Your task to perform on an android device: install app "Messenger Lite" Image 0: 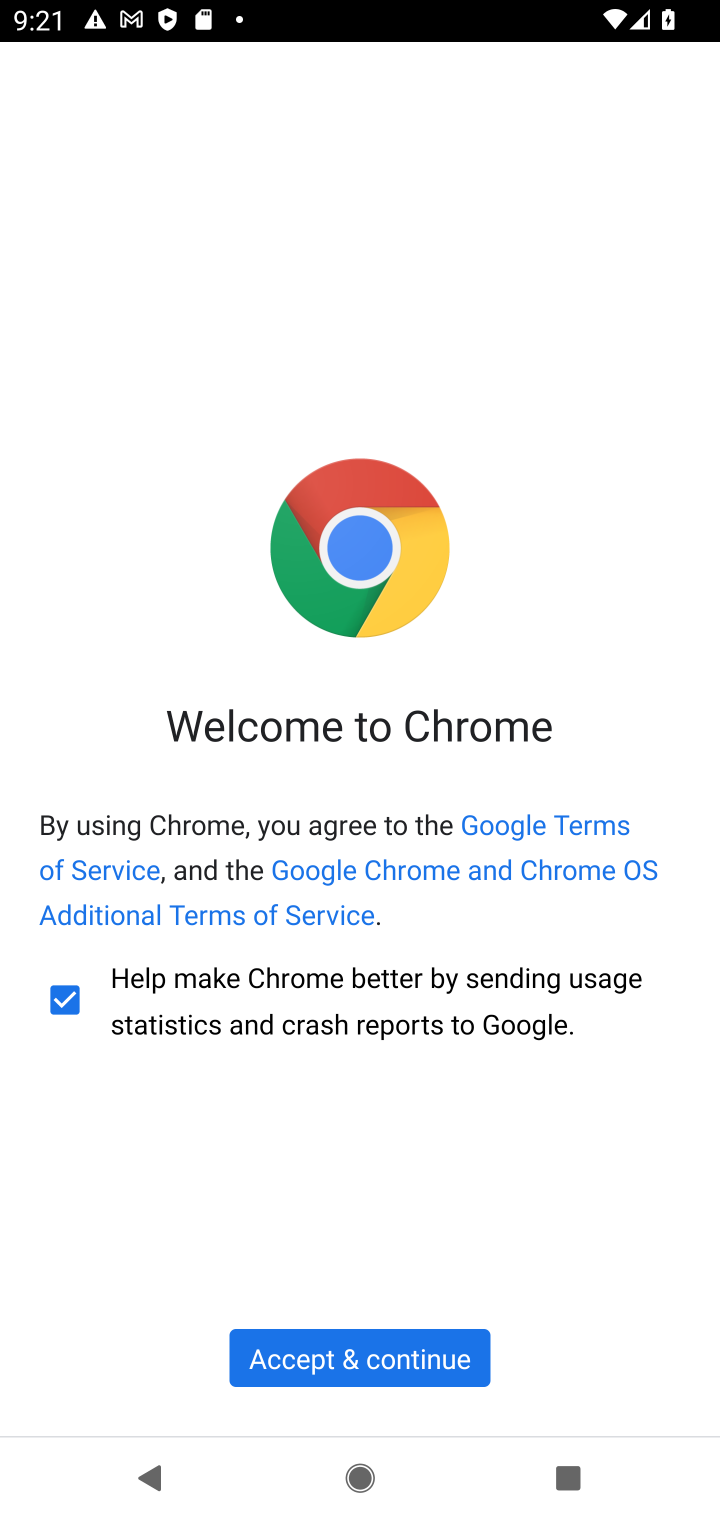
Step 0: press home button
Your task to perform on an android device: install app "Messenger Lite" Image 1: 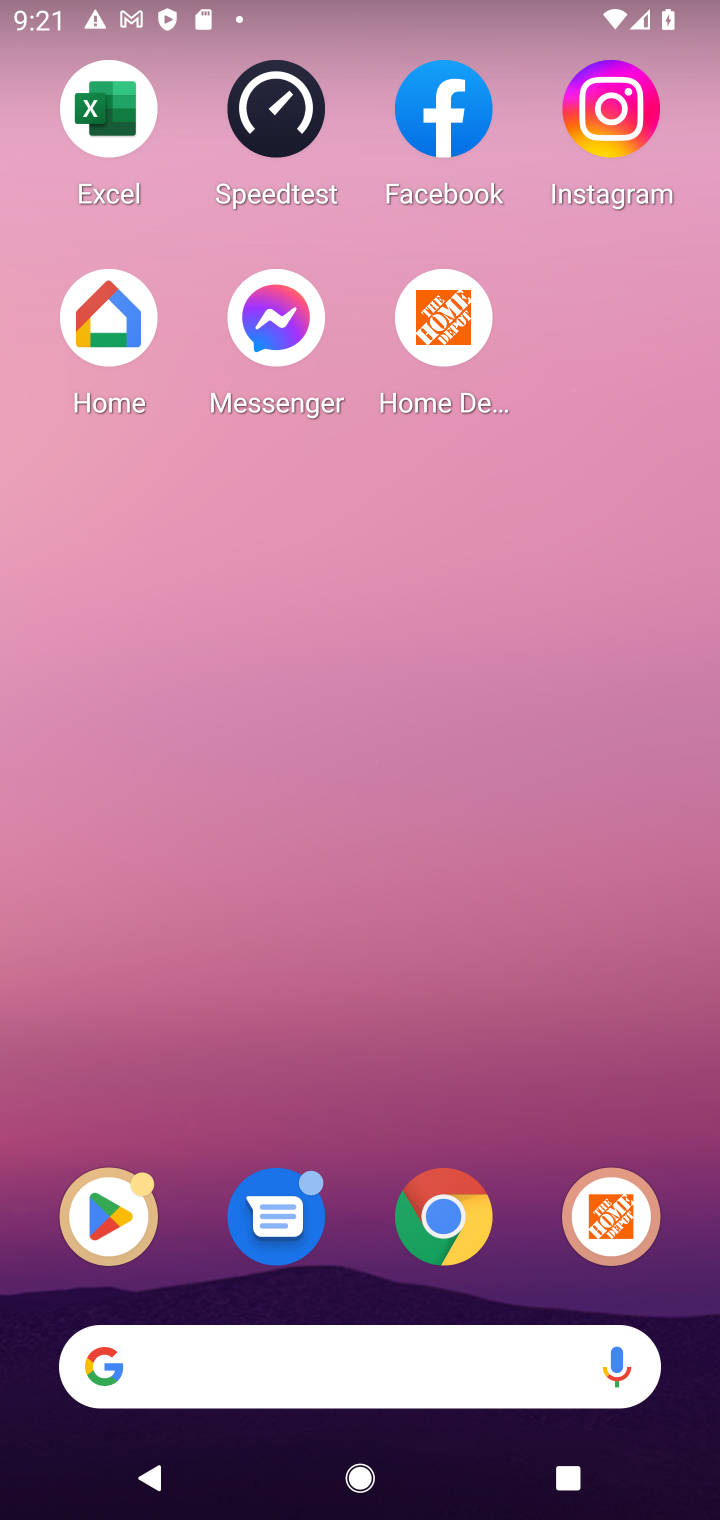
Step 1: click (132, 1239)
Your task to perform on an android device: install app "Messenger Lite" Image 2: 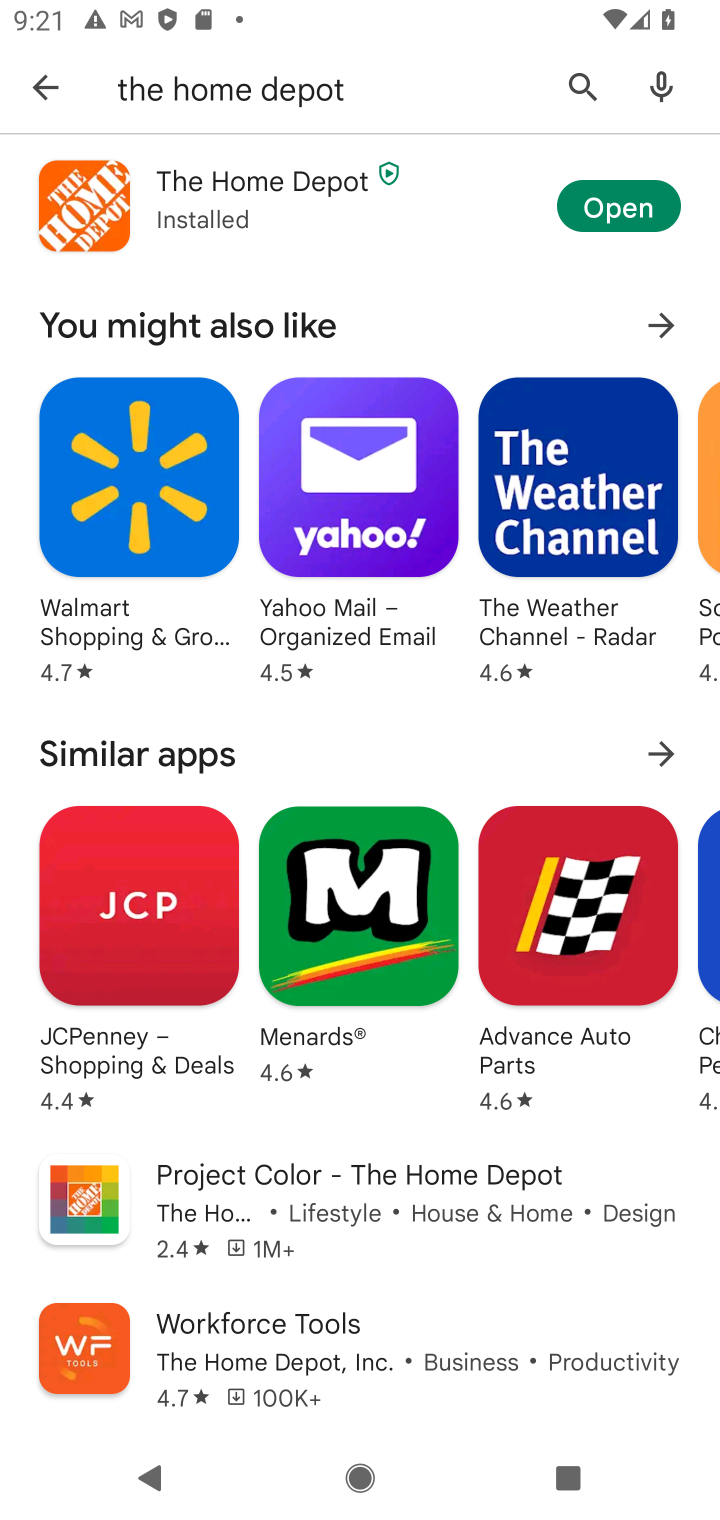
Step 2: click (572, 72)
Your task to perform on an android device: install app "Messenger Lite" Image 3: 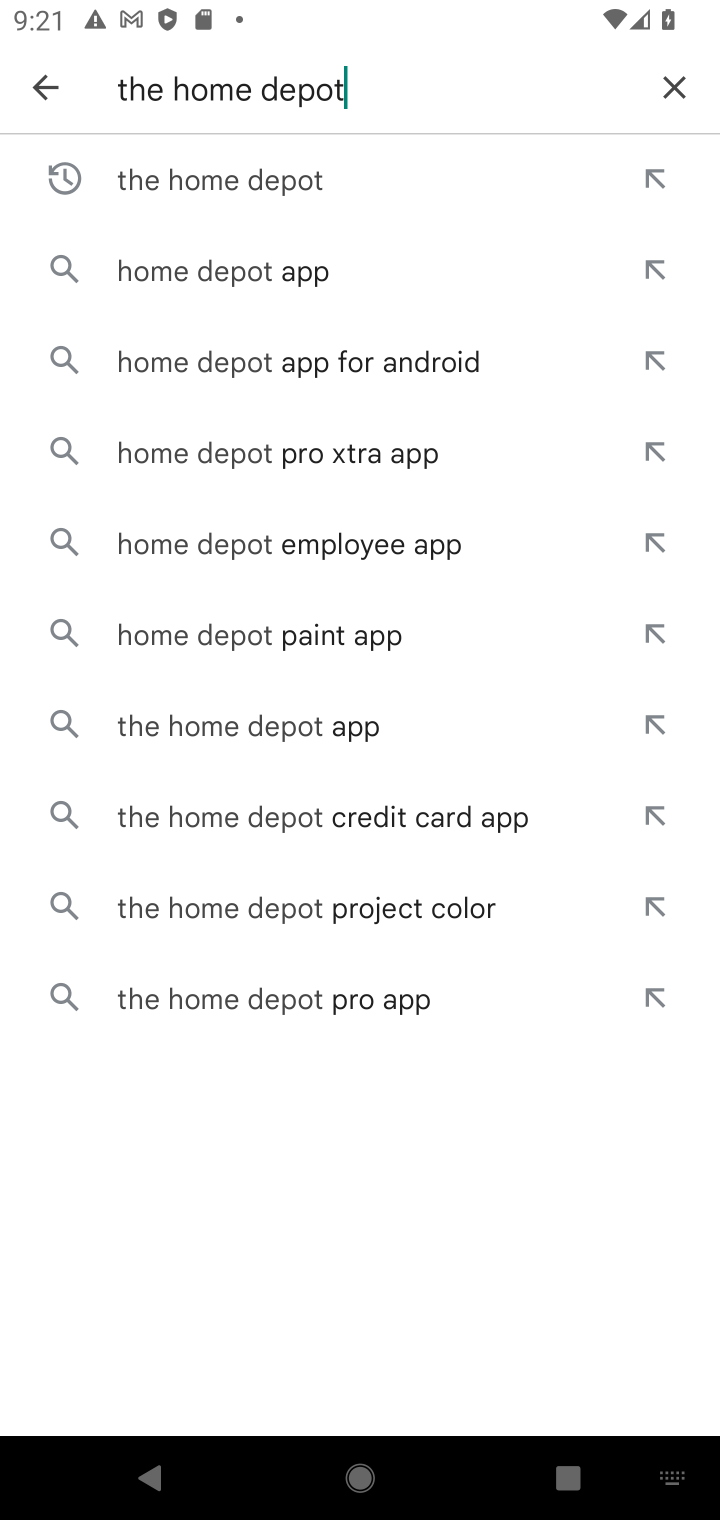
Step 3: click (656, 90)
Your task to perform on an android device: install app "Messenger Lite" Image 4: 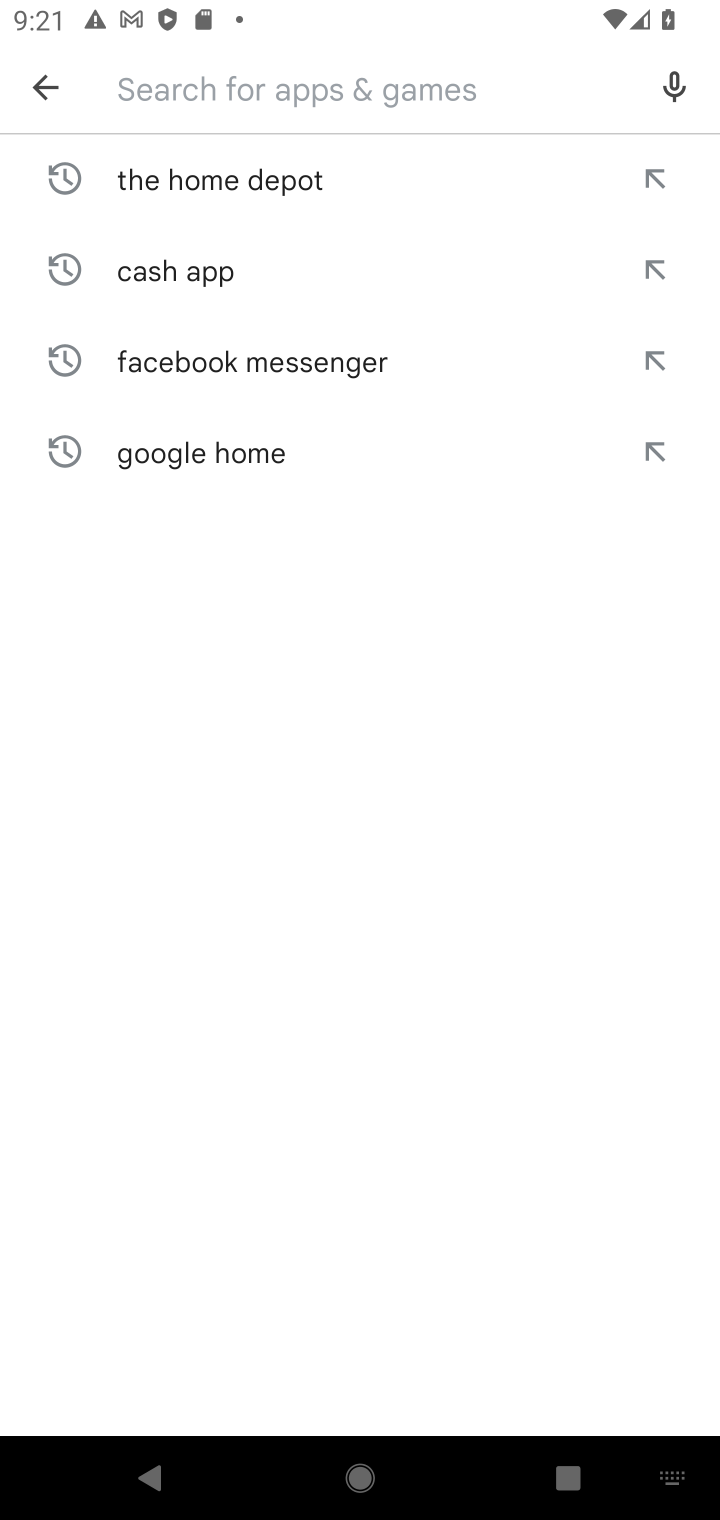
Step 4: type "Messenger Lite"
Your task to perform on an android device: install app "Messenger Lite" Image 5: 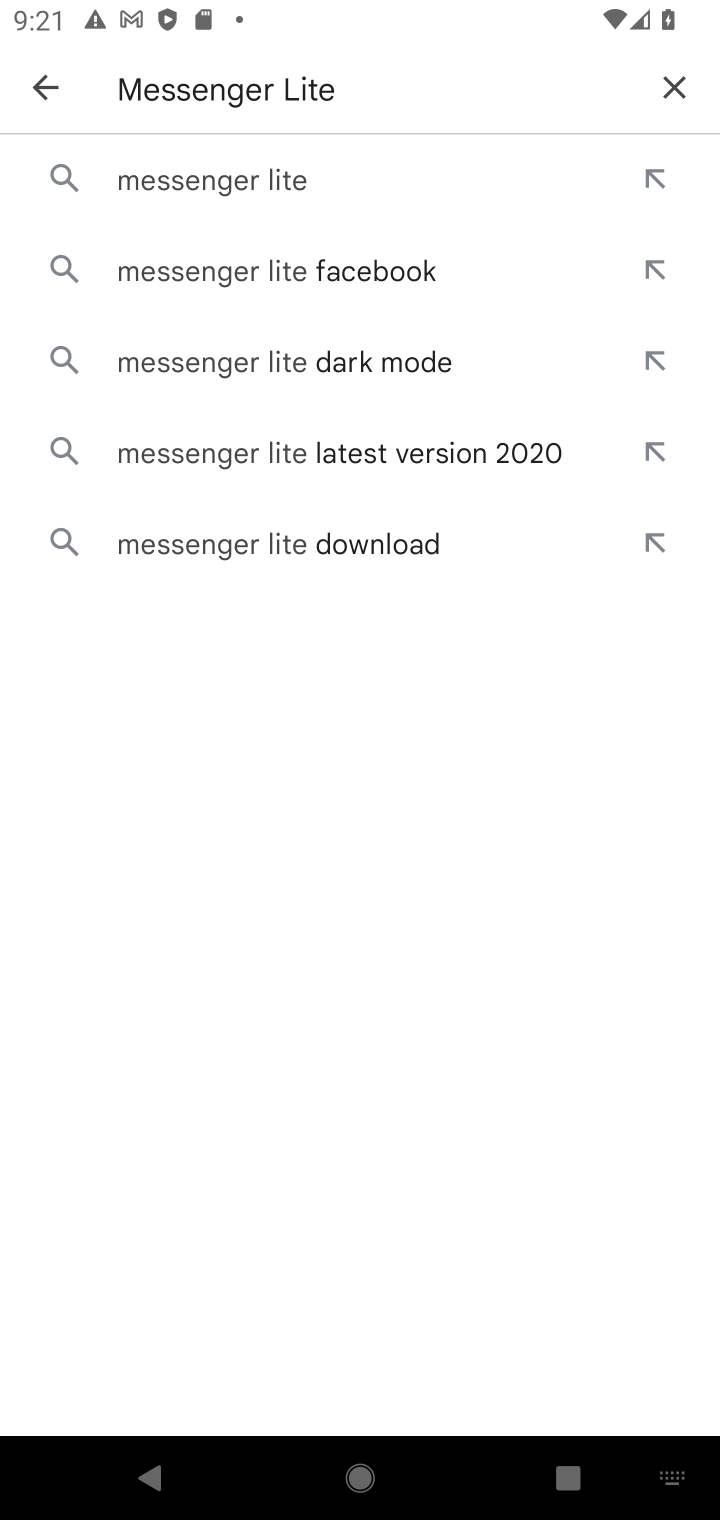
Step 5: click (229, 183)
Your task to perform on an android device: install app "Messenger Lite" Image 6: 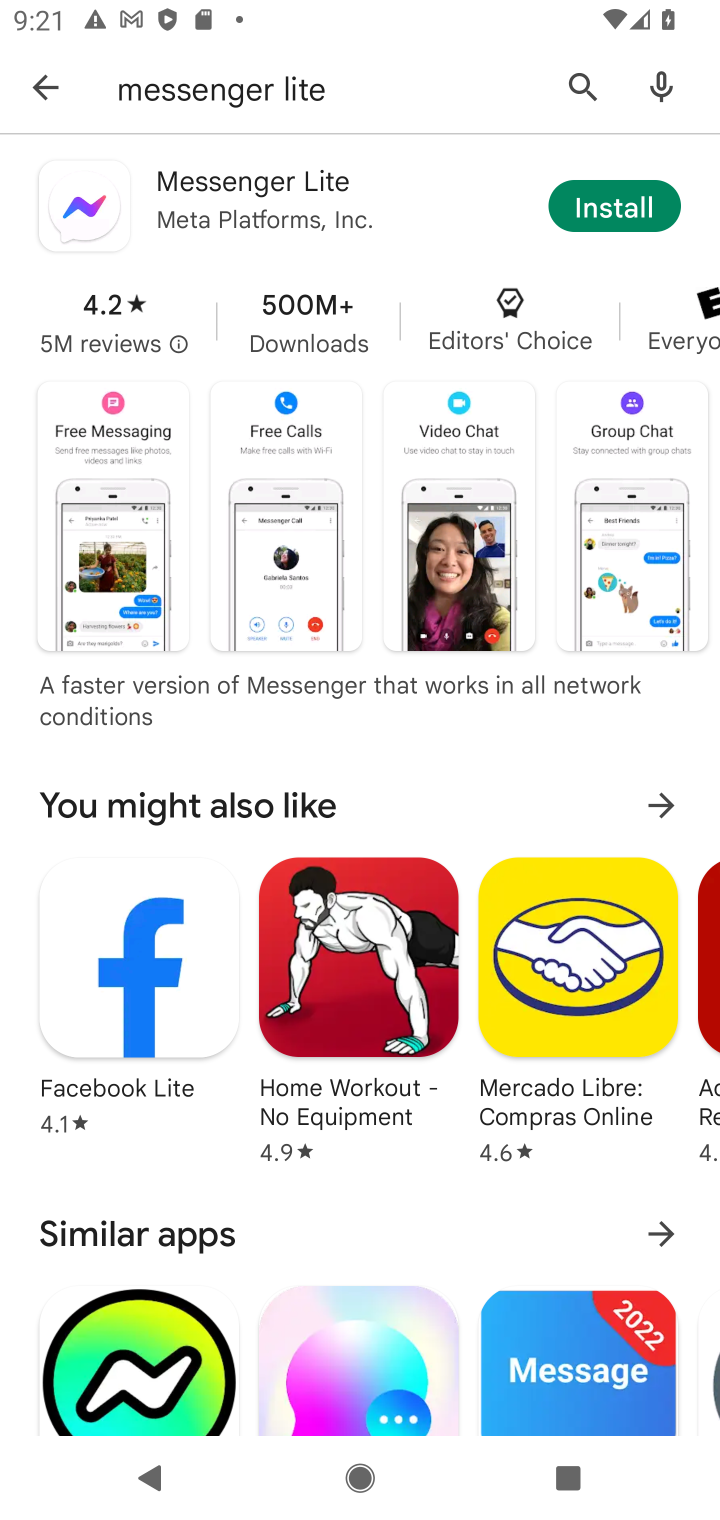
Step 6: click (584, 219)
Your task to perform on an android device: install app "Messenger Lite" Image 7: 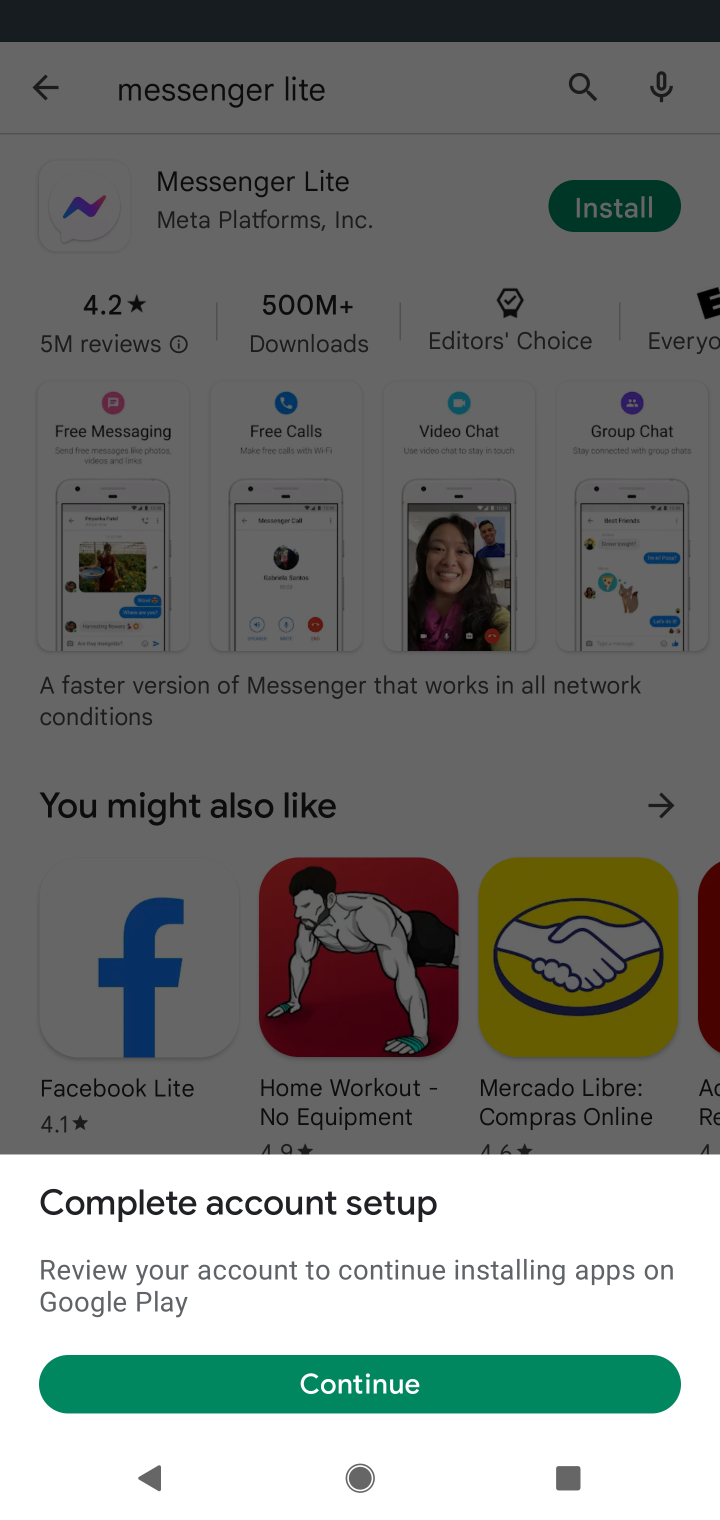
Step 7: click (379, 1390)
Your task to perform on an android device: install app "Messenger Lite" Image 8: 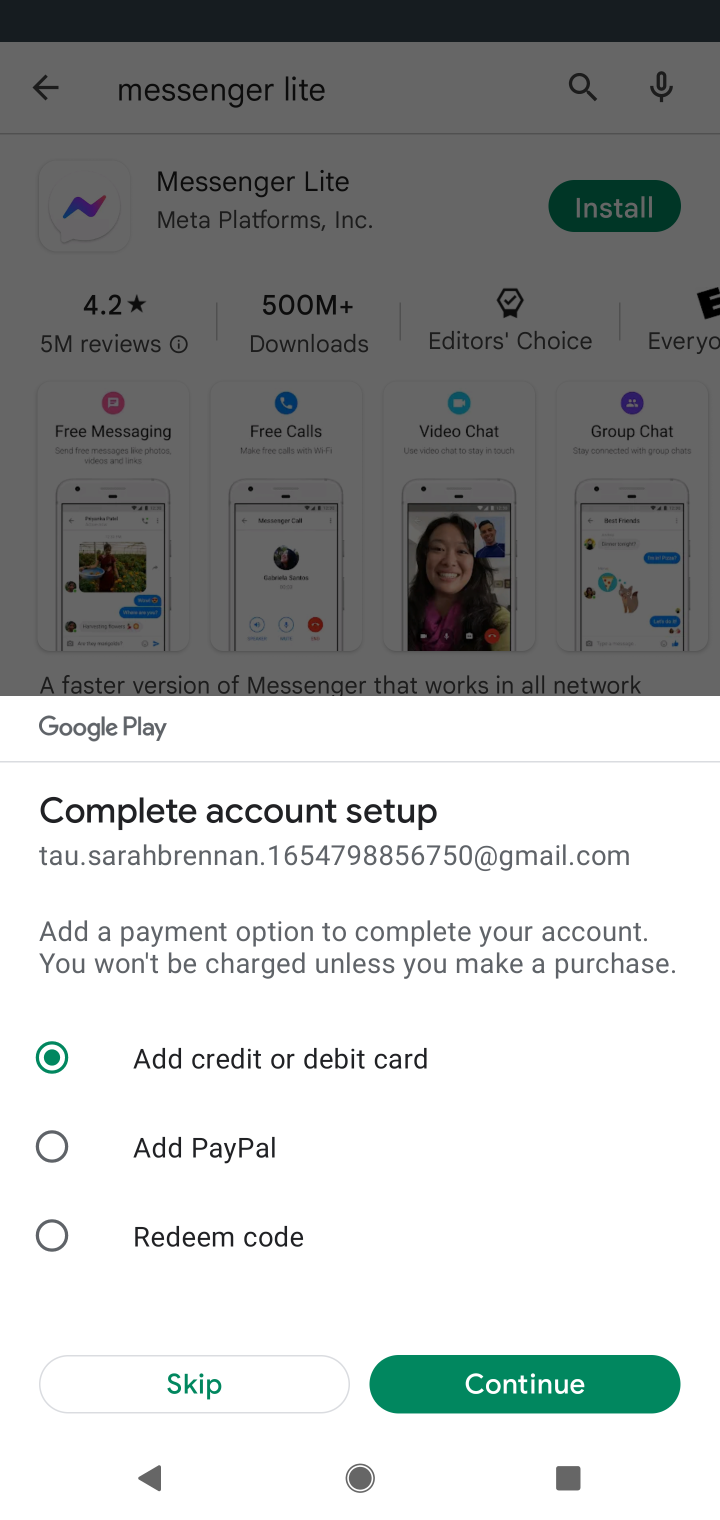
Step 8: click (248, 1371)
Your task to perform on an android device: install app "Messenger Lite" Image 9: 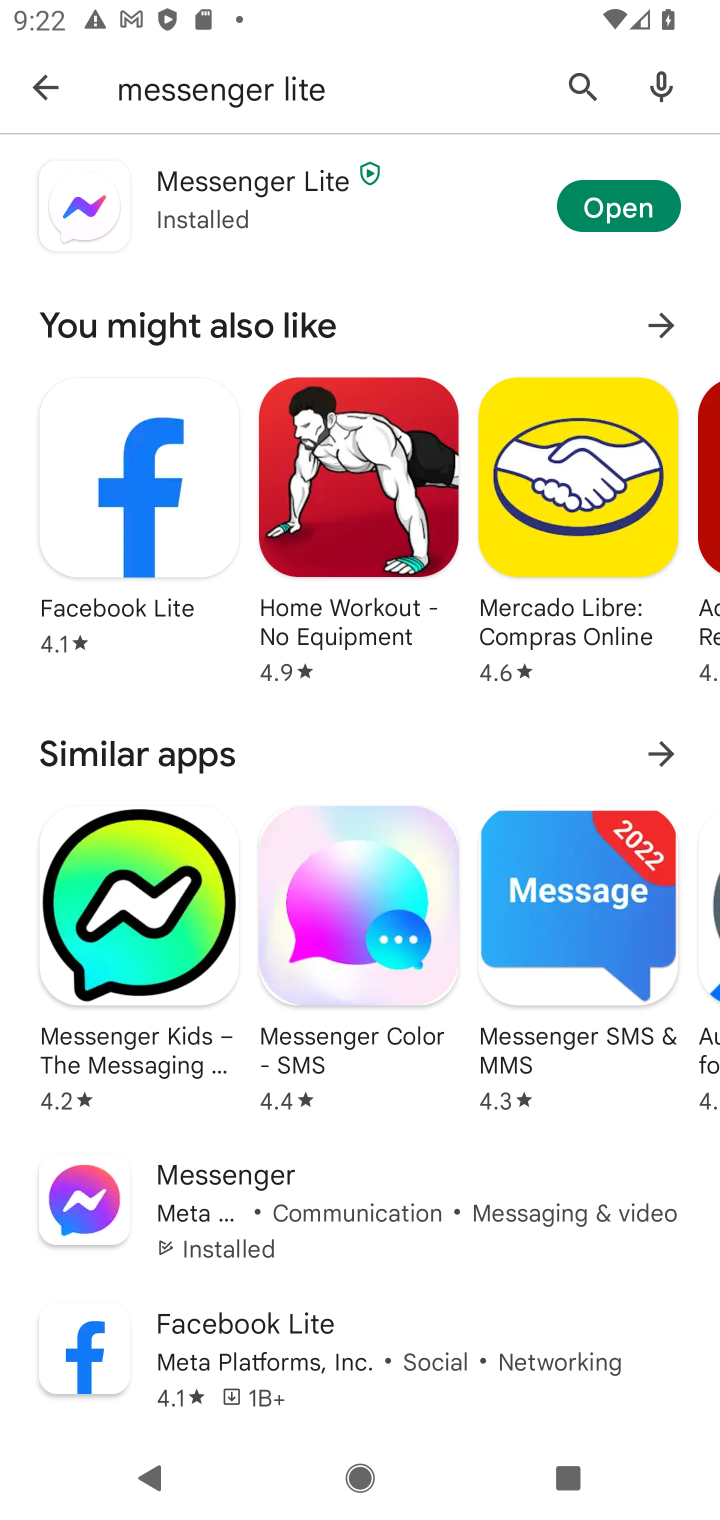
Step 9: task complete